Your task to perform on an android device: Open Wikipedia Image 0: 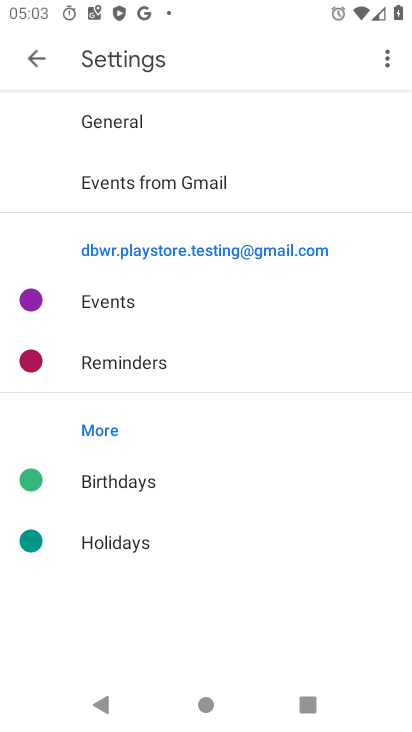
Step 0: press home button
Your task to perform on an android device: Open Wikipedia Image 1: 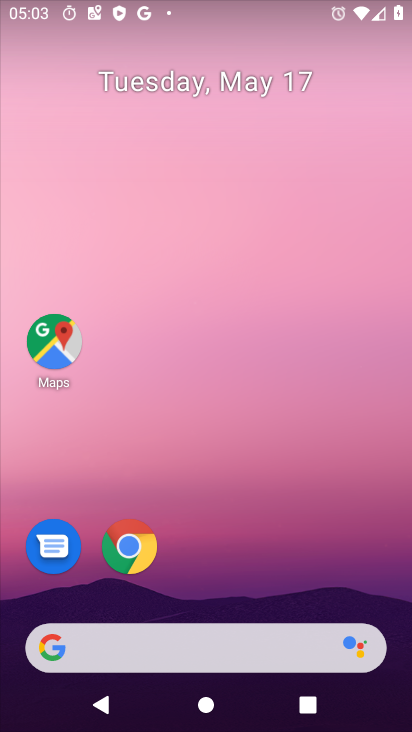
Step 1: drag from (399, 663) to (381, 368)
Your task to perform on an android device: Open Wikipedia Image 2: 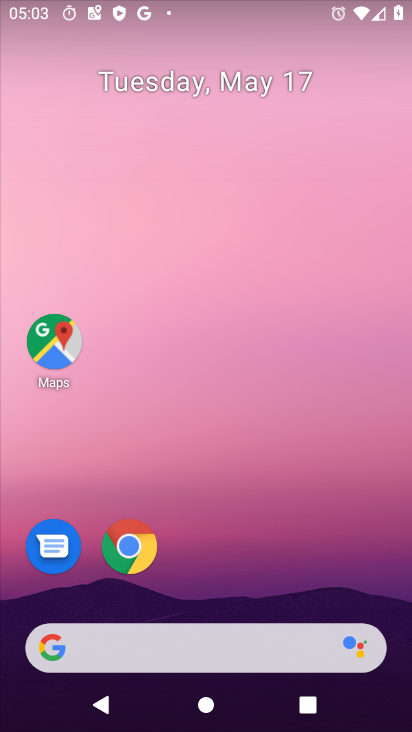
Step 2: drag from (397, 628) to (378, 469)
Your task to perform on an android device: Open Wikipedia Image 3: 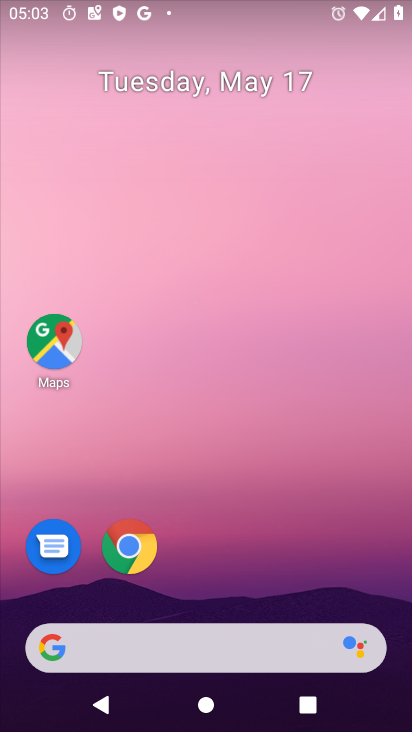
Step 3: drag from (398, 669) to (373, 439)
Your task to perform on an android device: Open Wikipedia Image 4: 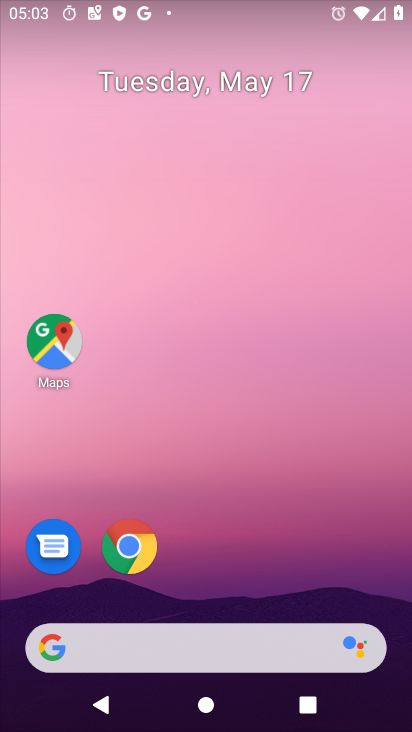
Step 4: click (123, 545)
Your task to perform on an android device: Open Wikipedia Image 5: 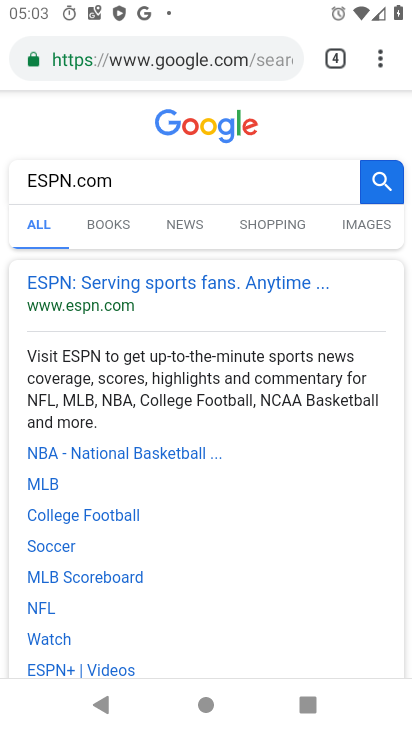
Step 5: click (291, 62)
Your task to perform on an android device: Open Wikipedia Image 6: 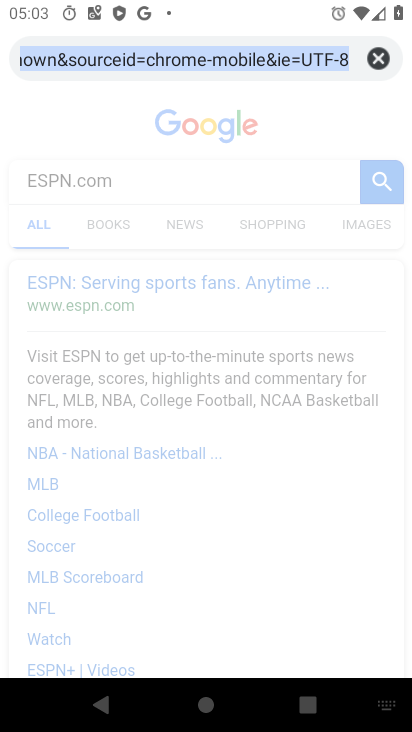
Step 6: click (379, 60)
Your task to perform on an android device: Open Wikipedia Image 7: 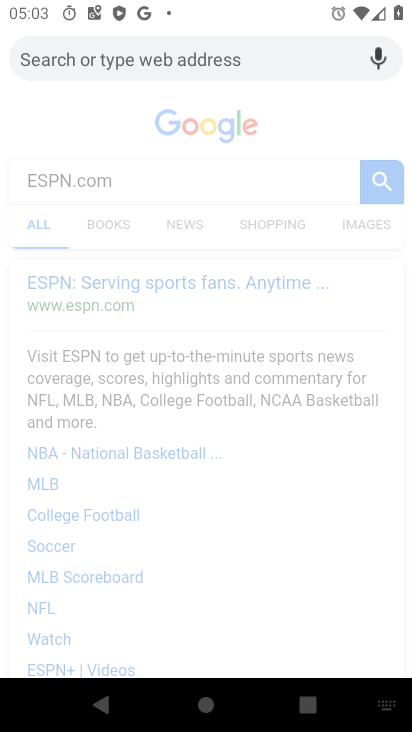
Step 7: type " Wikipedia"
Your task to perform on an android device: Open Wikipedia Image 8: 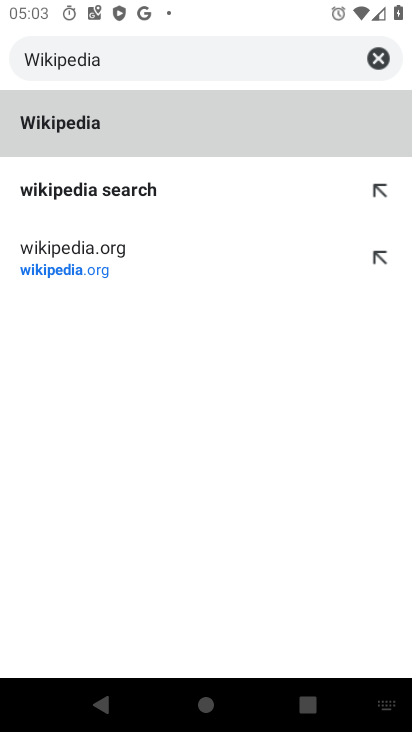
Step 8: click (120, 131)
Your task to perform on an android device: Open Wikipedia Image 9: 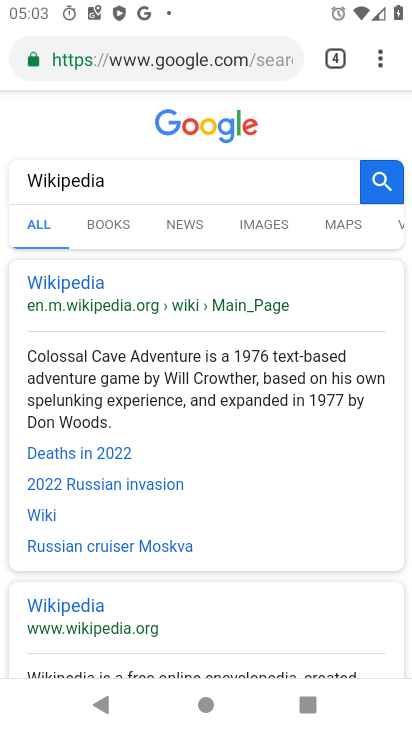
Step 9: task complete